Your task to perform on an android device: Do I have any events this weekend? Image 0: 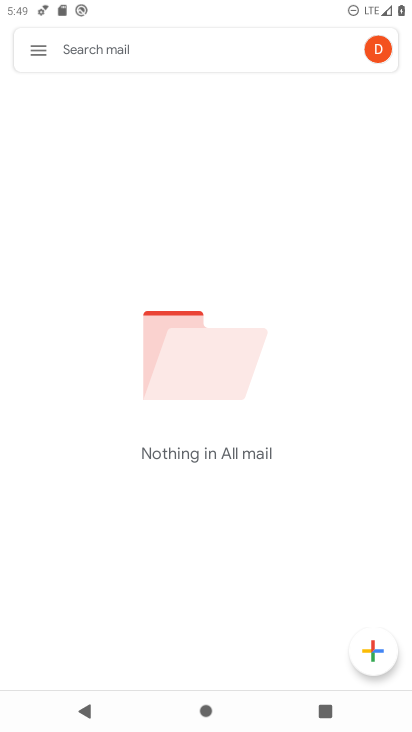
Step 0: press home button
Your task to perform on an android device: Do I have any events this weekend? Image 1: 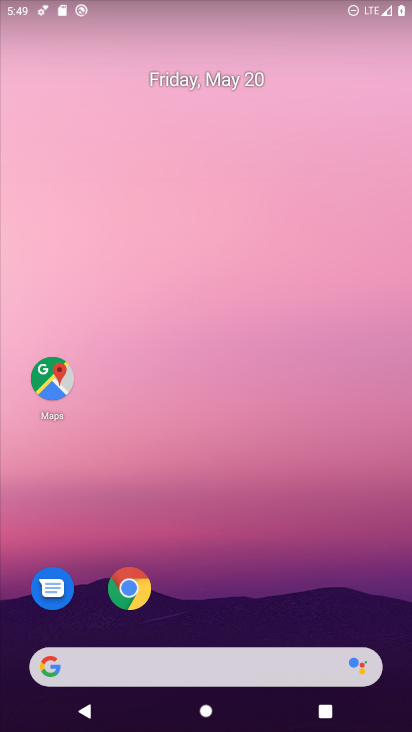
Step 1: drag from (206, 600) to (183, 238)
Your task to perform on an android device: Do I have any events this weekend? Image 2: 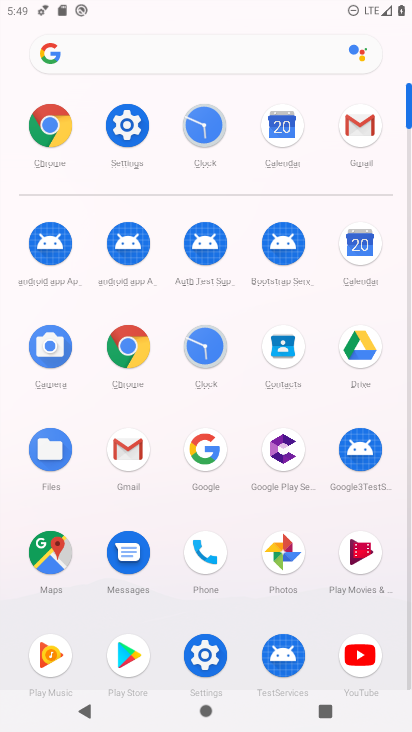
Step 2: click (360, 262)
Your task to perform on an android device: Do I have any events this weekend? Image 3: 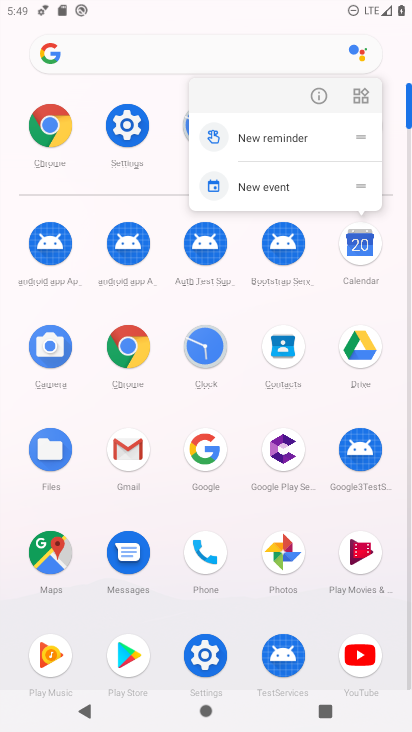
Step 3: click (360, 262)
Your task to perform on an android device: Do I have any events this weekend? Image 4: 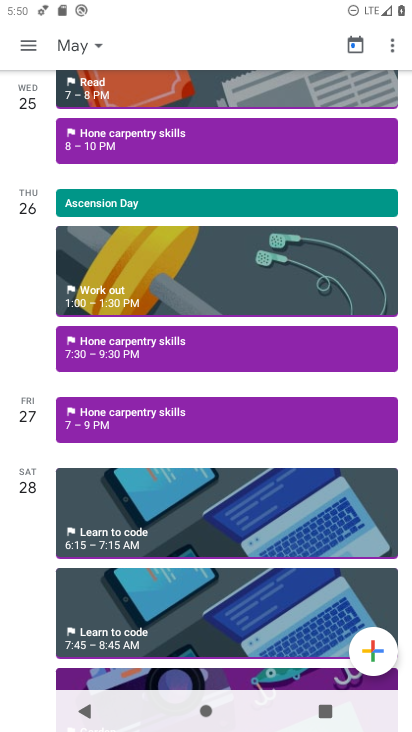
Step 4: click (73, 46)
Your task to perform on an android device: Do I have any events this weekend? Image 5: 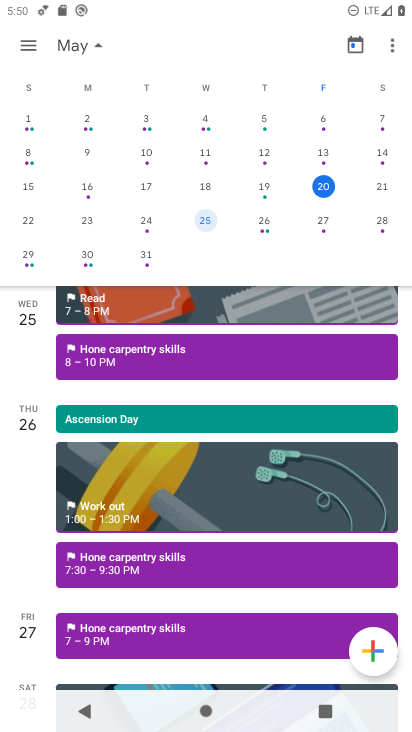
Step 5: click (21, 44)
Your task to perform on an android device: Do I have any events this weekend? Image 6: 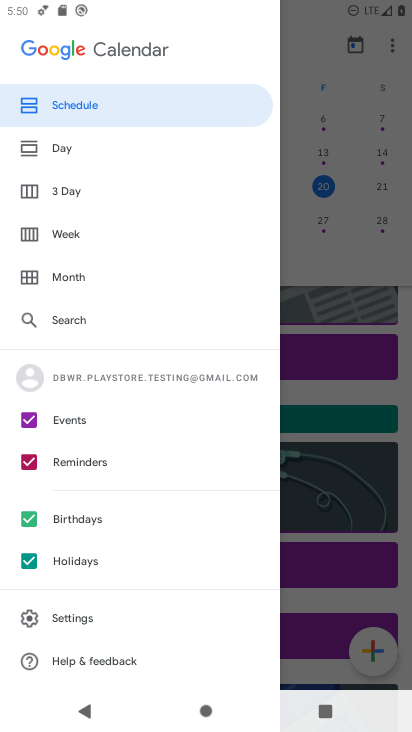
Step 6: click (70, 240)
Your task to perform on an android device: Do I have any events this weekend? Image 7: 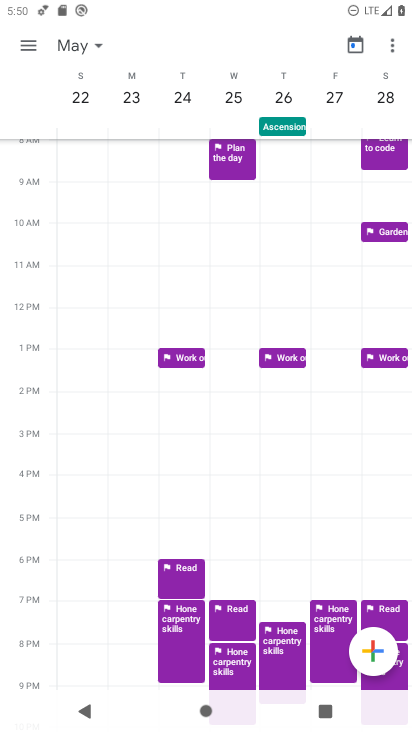
Step 7: click (70, 49)
Your task to perform on an android device: Do I have any events this weekend? Image 8: 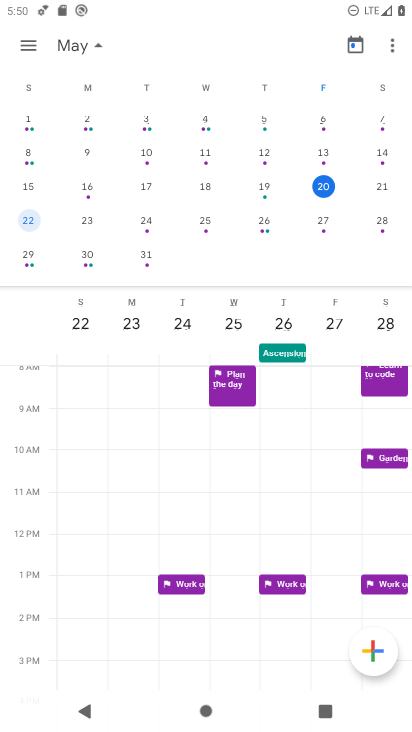
Step 8: click (29, 189)
Your task to perform on an android device: Do I have any events this weekend? Image 9: 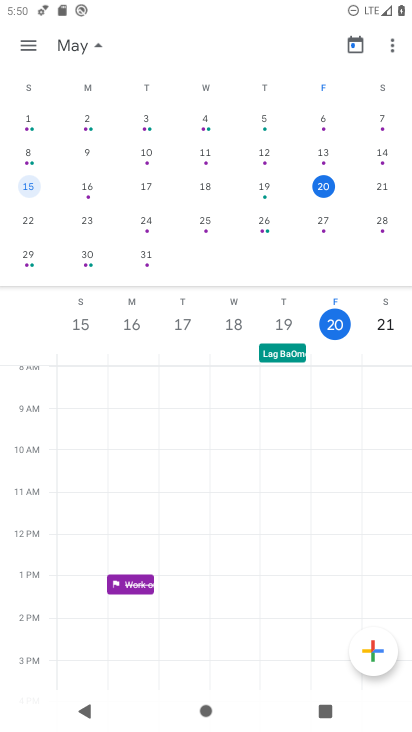
Step 9: task complete